Your task to perform on an android device: turn off picture-in-picture Image 0: 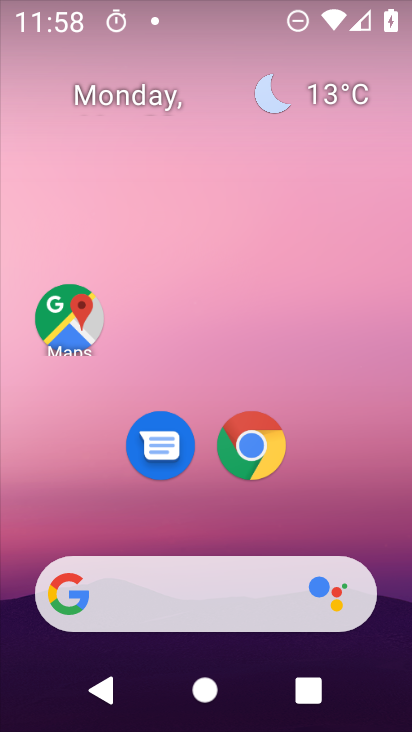
Step 0: drag from (181, 462) to (248, 69)
Your task to perform on an android device: turn off picture-in-picture Image 1: 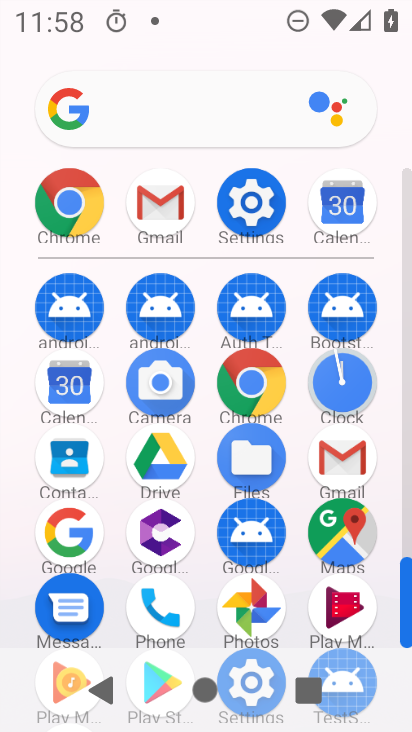
Step 1: click (234, 188)
Your task to perform on an android device: turn off picture-in-picture Image 2: 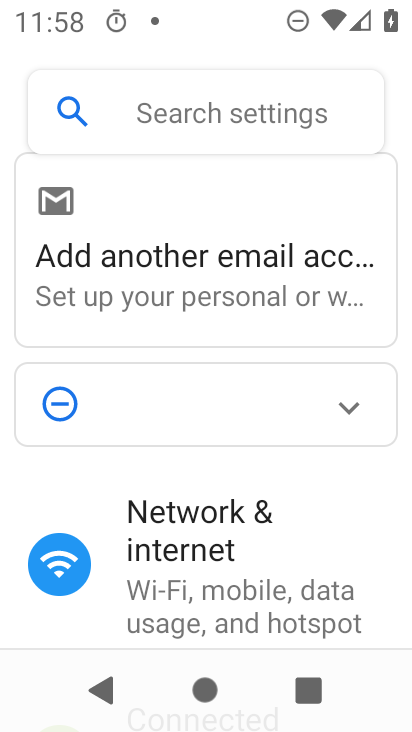
Step 2: drag from (202, 564) to (256, 81)
Your task to perform on an android device: turn off picture-in-picture Image 3: 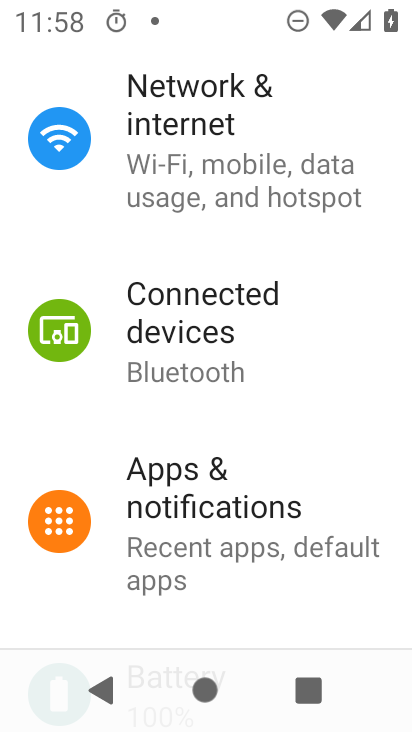
Step 3: drag from (231, 206) to (204, 525)
Your task to perform on an android device: turn off picture-in-picture Image 4: 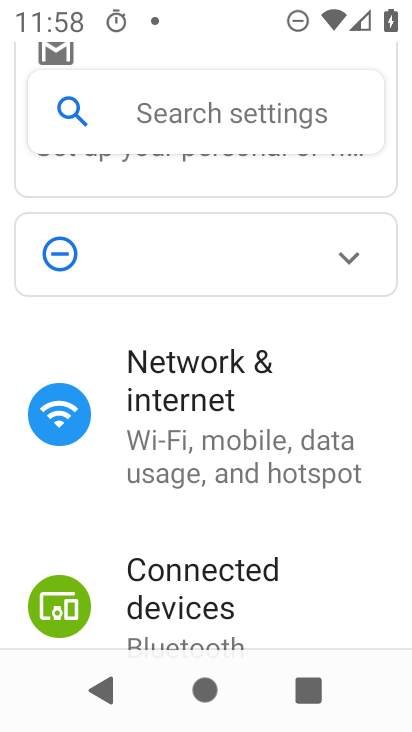
Step 4: drag from (189, 603) to (212, 190)
Your task to perform on an android device: turn off picture-in-picture Image 5: 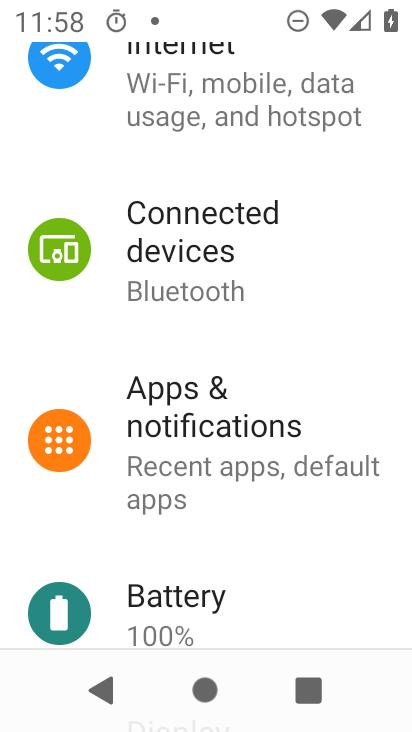
Step 5: click (172, 447)
Your task to perform on an android device: turn off picture-in-picture Image 6: 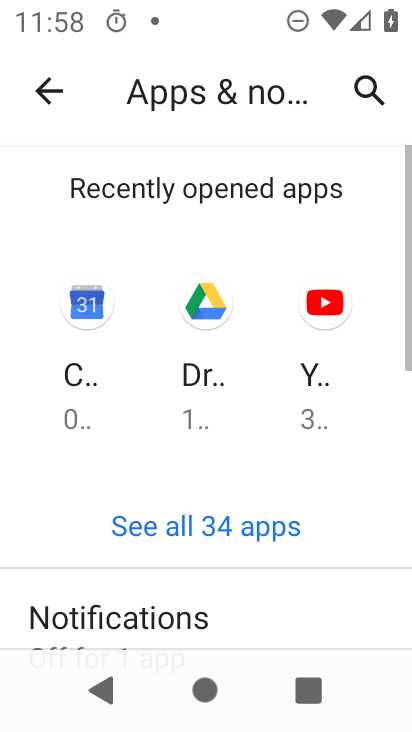
Step 6: drag from (142, 614) to (225, 156)
Your task to perform on an android device: turn off picture-in-picture Image 7: 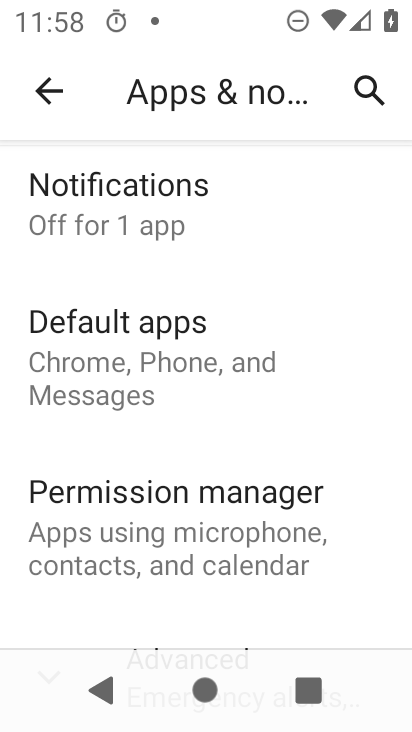
Step 7: drag from (143, 226) to (142, 609)
Your task to perform on an android device: turn off picture-in-picture Image 8: 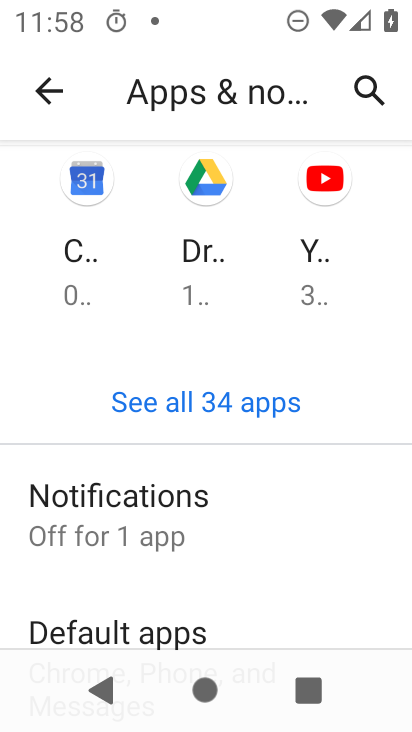
Step 8: drag from (146, 545) to (220, 193)
Your task to perform on an android device: turn off picture-in-picture Image 9: 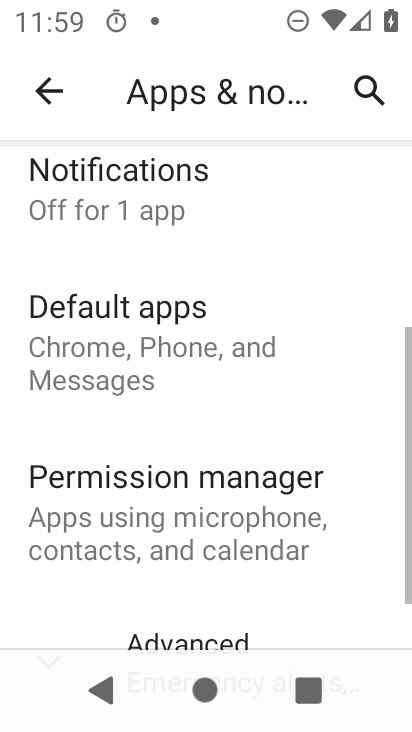
Step 9: drag from (177, 558) to (262, 82)
Your task to perform on an android device: turn off picture-in-picture Image 10: 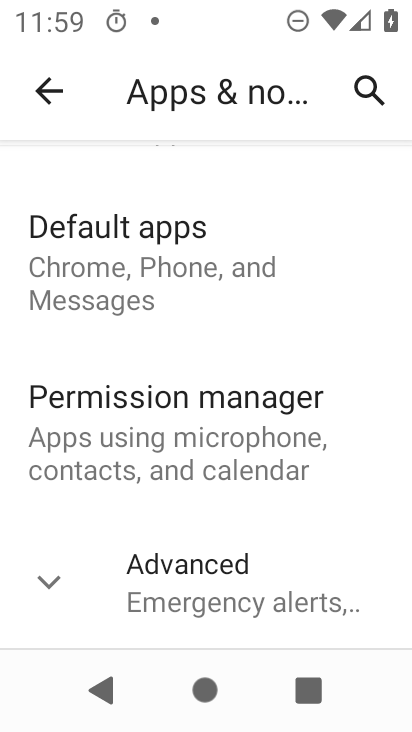
Step 10: click (193, 580)
Your task to perform on an android device: turn off picture-in-picture Image 11: 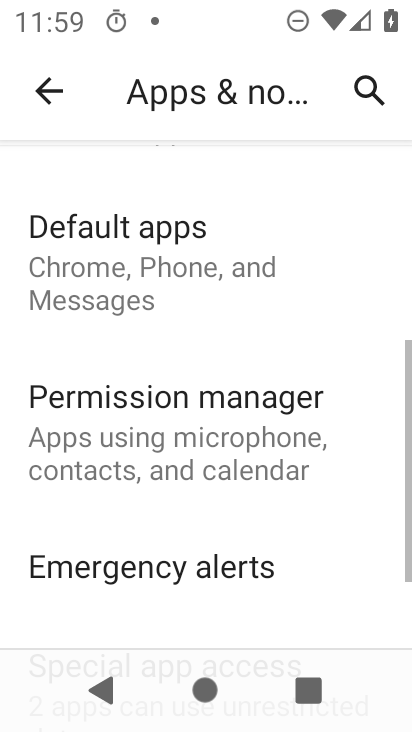
Step 11: drag from (194, 536) to (242, 196)
Your task to perform on an android device: turn off picture-in-picture Image 12: 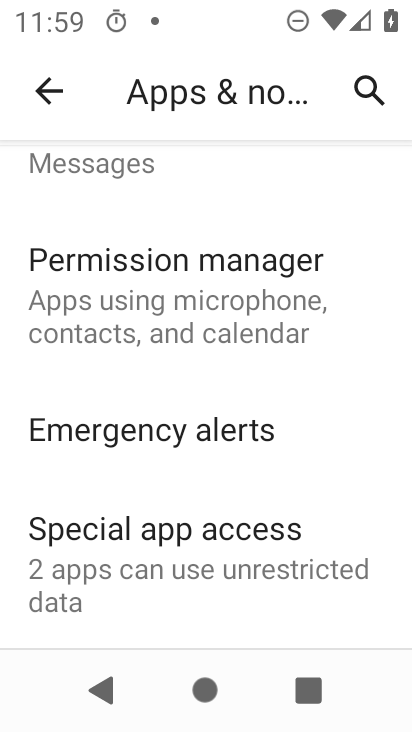
Step 12: drag from (164, 521) to (205, 116)
Your task to perform on an android device: turn off picture-in-picture Image 13: 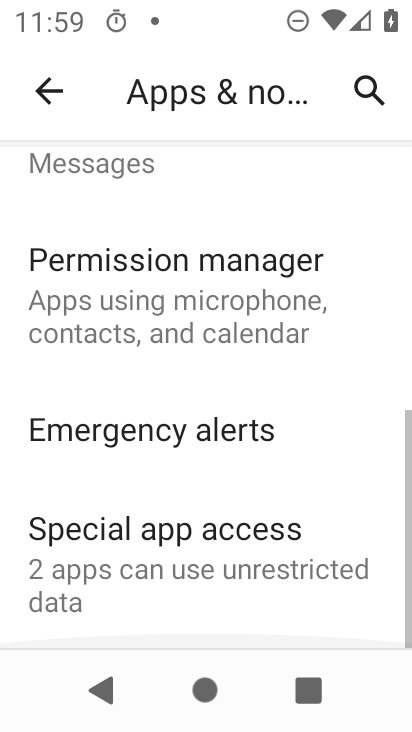
Step 13: click (135, 559)
Your task to perform on an android device: turn off picture-in-picture Image 14: 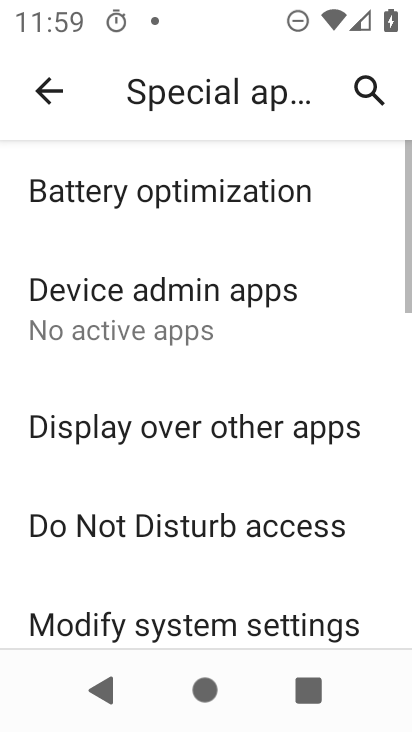
Step 14: drag from (122, 567) to (232, 39)
Your task to perform on an android device: turn off picture-in-picture Image 15: 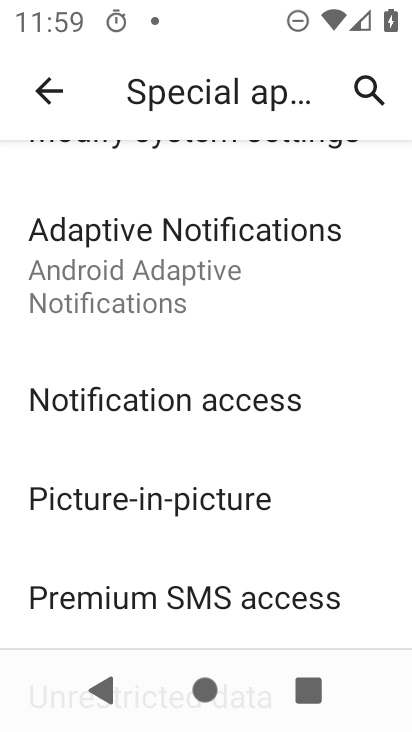
Step 15: click (115, 482)
Your task to perform on an android device: turn off picture-in-picture Image 16: 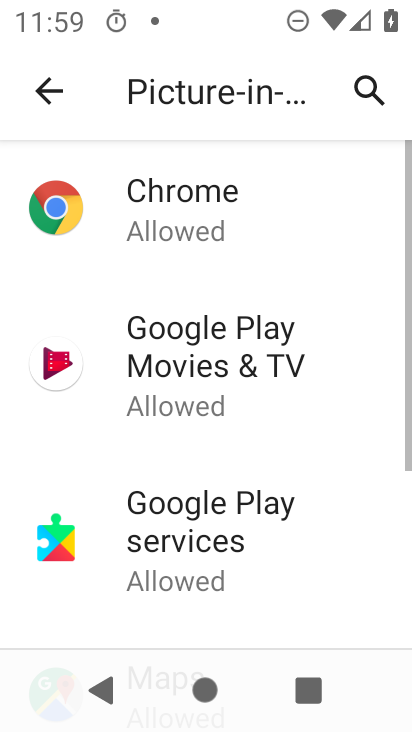
Step 16: click (184, 213)
Your task to perform on an android device: turn off picture-in-picture Image 17: 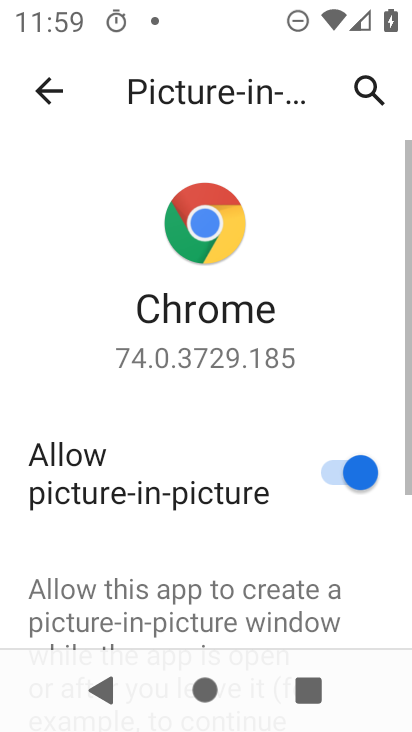
Step 17: click (350, 467)
Your task to perform on an android device: turn off picture-in-picture Image 18: 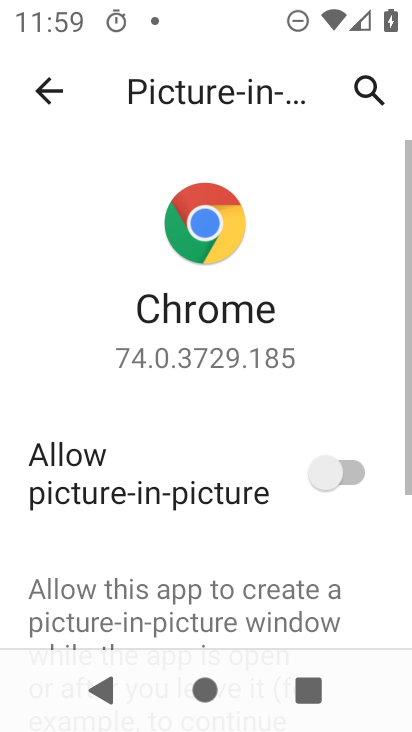
Step 18: task complete